Your task to perform on an android device: Do I have any events tomorrow? Image 0: 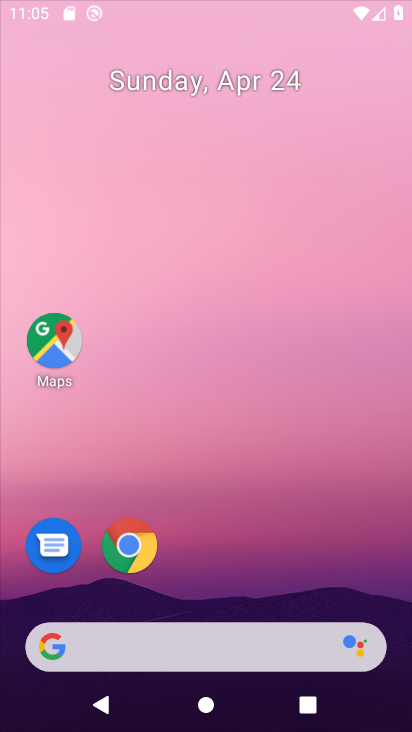
Step 0: click (207, 628)
Your task to perform on an android device: Do I have any events tomorrow? Image 1: 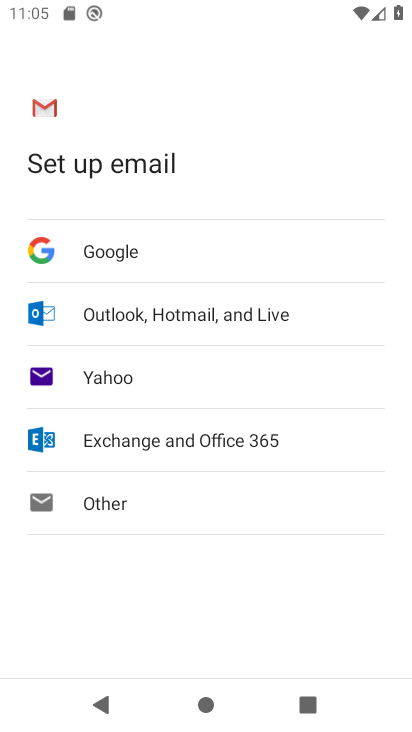
Step 1: press home button
Your task to perform on an android device: Do I have any events tomorrow? Image 2: 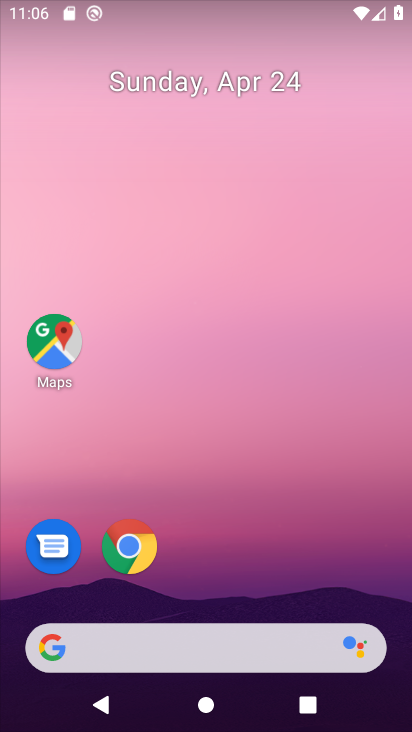
Step 2: drag from (220, 490) to (237, 53)
Your task to perform on an android device: Do I have any events tomorrow? Image 3: 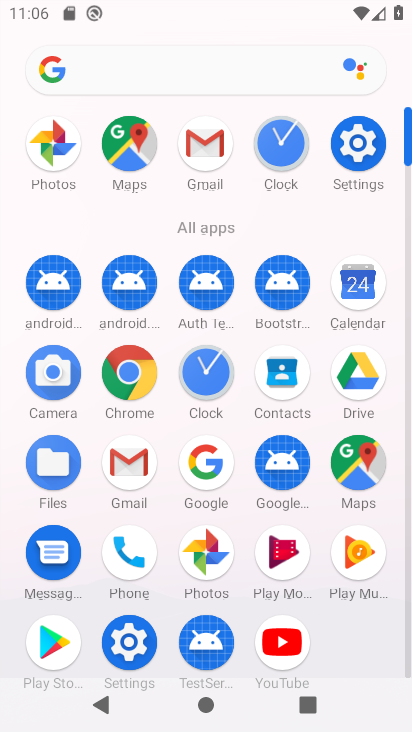
Step 3: click (351, 301)
Your task to perform on an android device: Do I have any events tomorrow? Image 4: 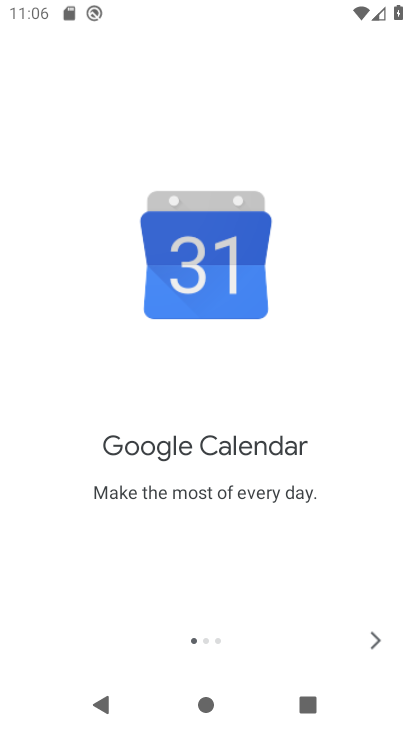
Step 4: click (371, 632)
Your task to perform on an android device: Do I have any events tomorrow? Image 5: 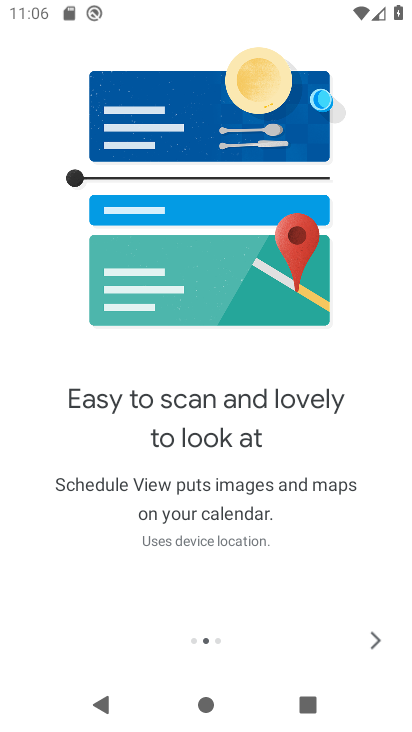
Step 5: click (371, 632)
Your task to perform on an android device: Do I have any events tomorrow? Image 6: 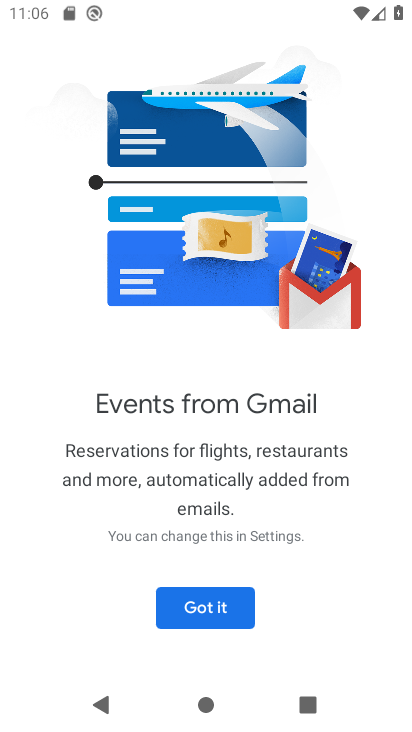
Step 6: click (371, 632)
Your task to perform on an android device: Do I have any events tomorrow? Image 7: 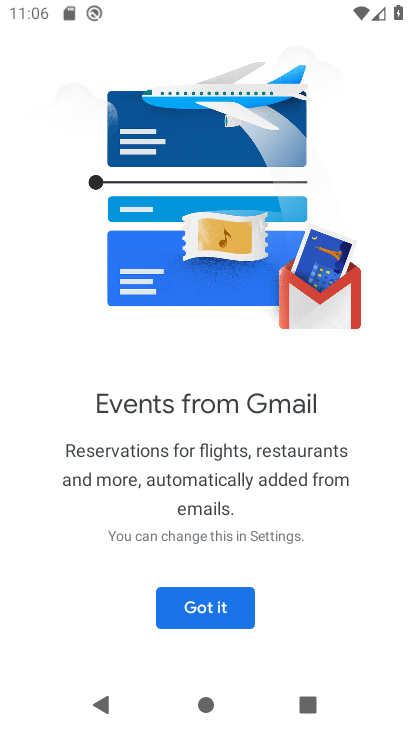
Step 7: click (210, 610)
Your task to perform on an android device: Do I have any events tomorrow? Image 8: 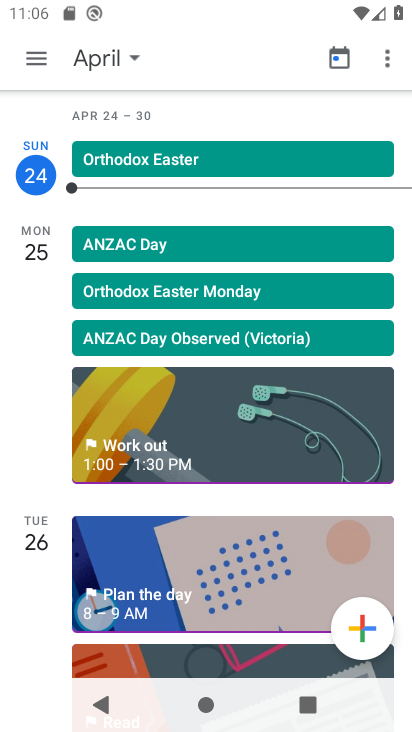
Step 8: click (36, 256)
Your task to perform on an android device: Do I have any events tomorrow? Image 9: 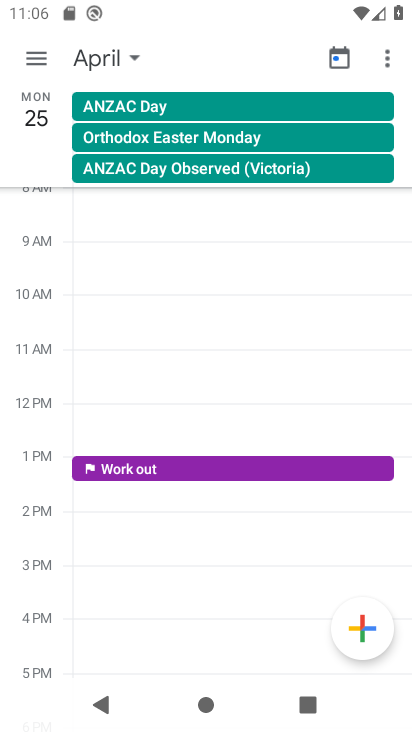
Step 9: task complete